Your task to perform on an android device: What's the latest video from Game Informer? Image 0: 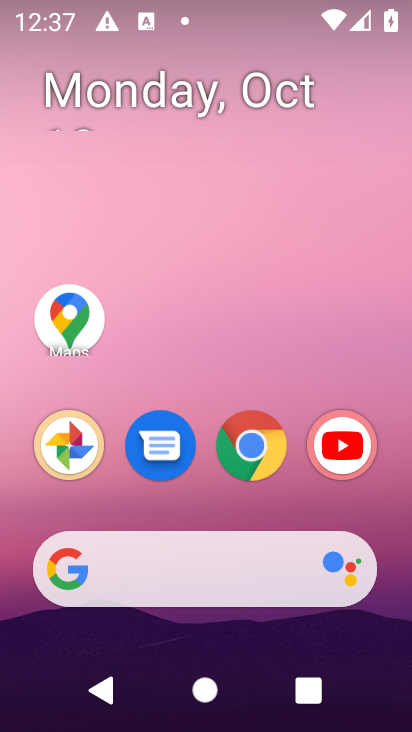
Step 0: task complete